Your task to perform on an android device: find which apps use the phone's location Image 0: 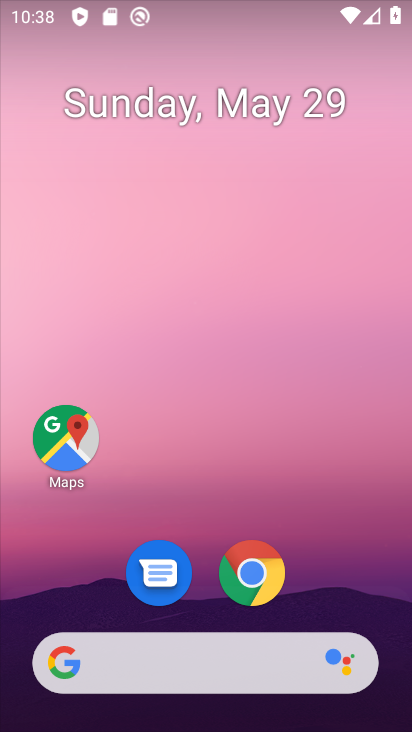
Step 0: click (215, 16)
Your task to perform on an android device: find which apps use the phone's location Image 1: 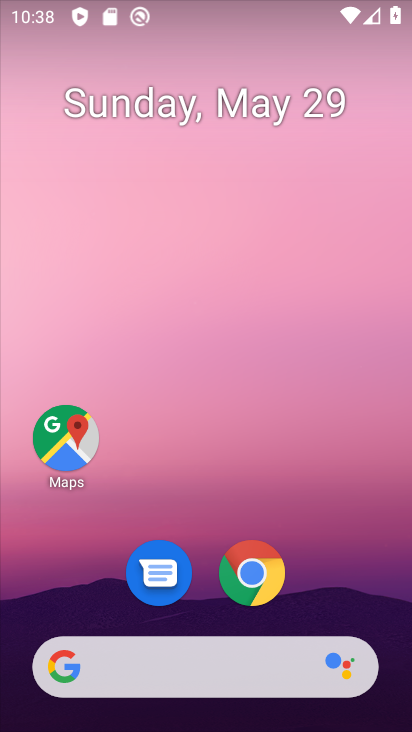
Step 1: drag from (326, 397) to (227, 17)
Your task to perform on an android device: find which apps use the phone's location Image 2: 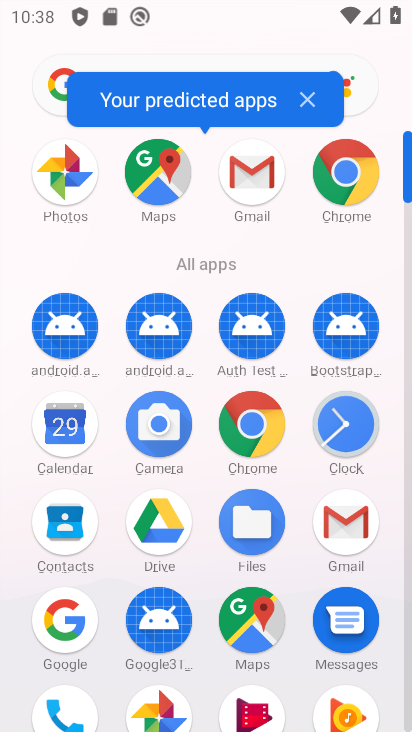
Step 2: drag from (204, 609) to (210, 225)
Your task to perform on an android device: find which apps use the phone's location Image 3: 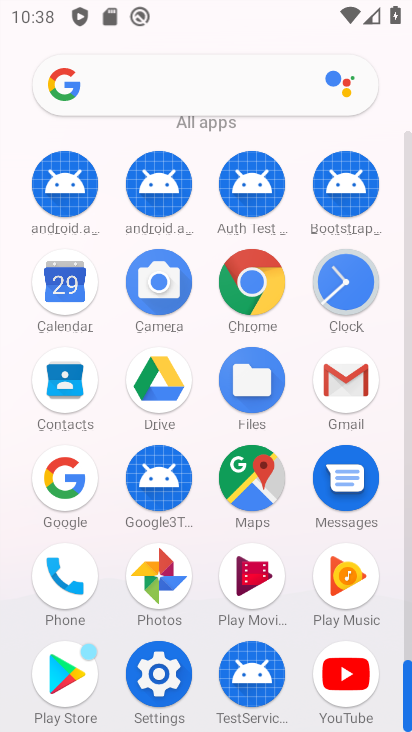
Step 3: click (165, 656)
Your task to perform on an android device: find which apps use the phone's location Image 4: 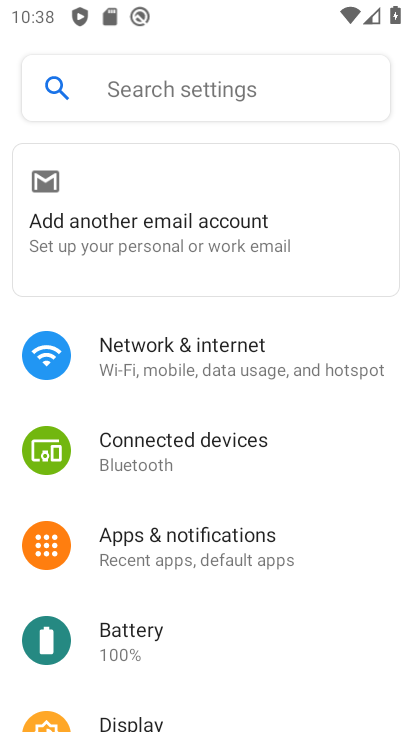
Step 4: drag from (203, 678) to (196, 131)
Your task to perform on an android device: find which apps use the phone's location Image 5: 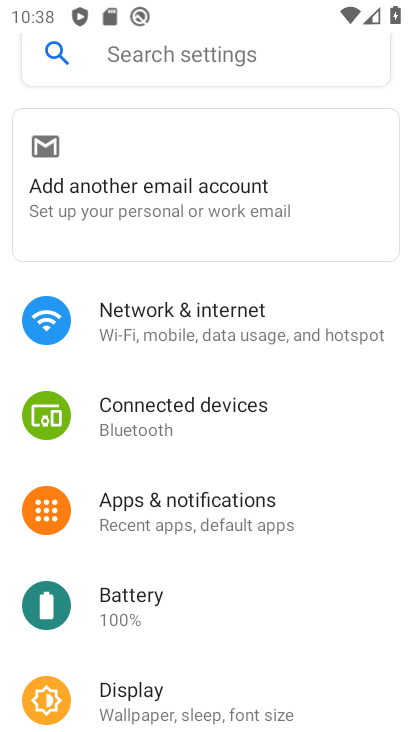
Step 5: drag from (222, 650) to (222, 125)
Your task to perform on an android device: find which apps use the phone's location Image 6: 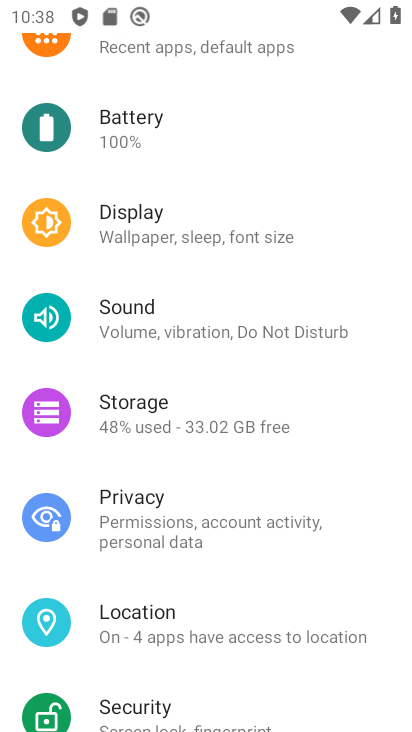
Step 6: click (176, 597)
Your task to perform on an android device: find which apps use the phone's location Image 7: 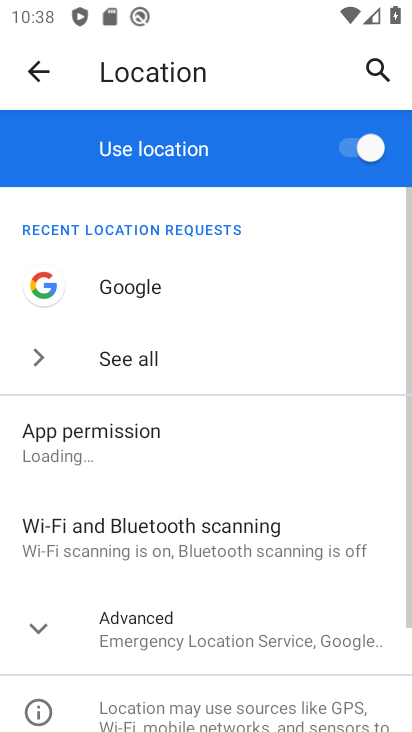
Step 7: click (170, 449)
Your task to perform on an android device: find which apps use the phone's location Image 8: 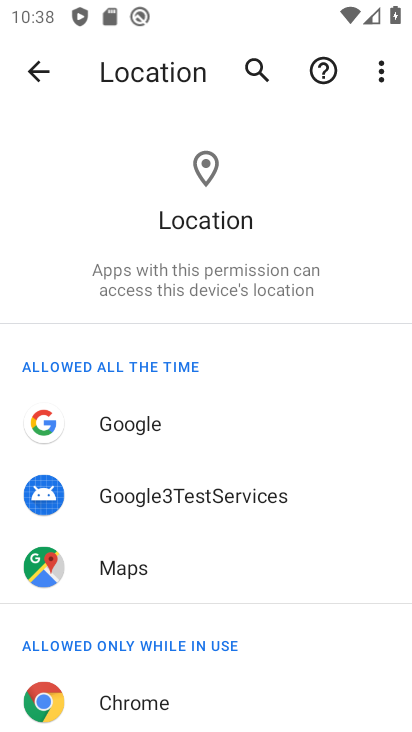
Step 8: task complete